Your task to perform on an android device: When is my next appointment? Image 0: 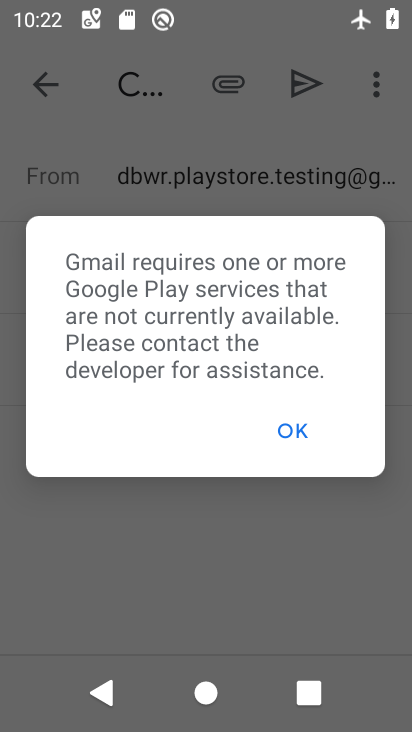
Step 0: press home button
Your task to perform on an android device: When is my next appointment? Image 1: 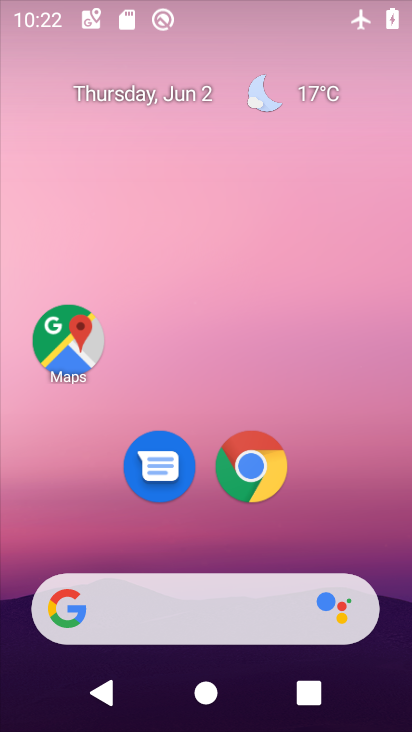
Step 1: drag from (211, 539) to (248, 230)
Your task to perform on an android device: When is my next appointment? Image 2: 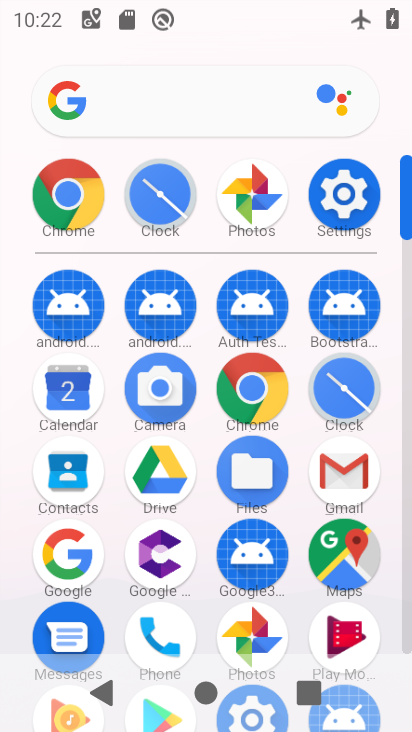
Step 2: click (66, 398)
Your task to perform on an android device: When is my next appointment? Image 3: 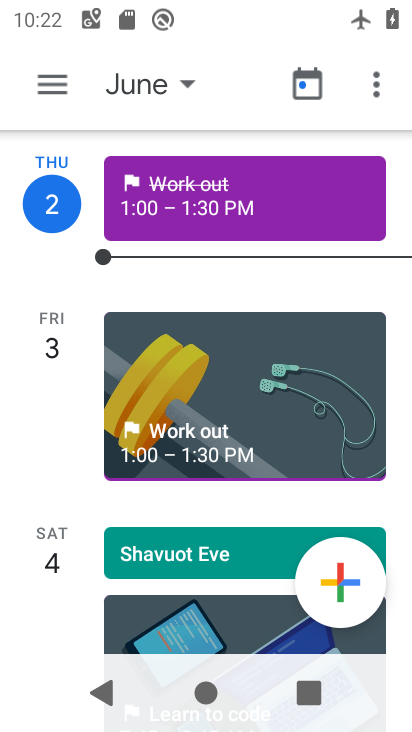
Step 3: task complete